Your task to perform on an android device: create a new album in the google photos Image 0: 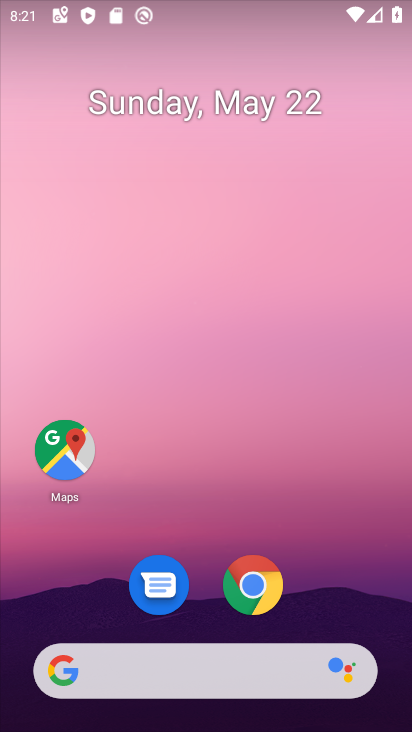
Step 0: drag from (250, 475) to (219, 58)
Your task to perform on an android device: create a new album in the google photos Image 1: 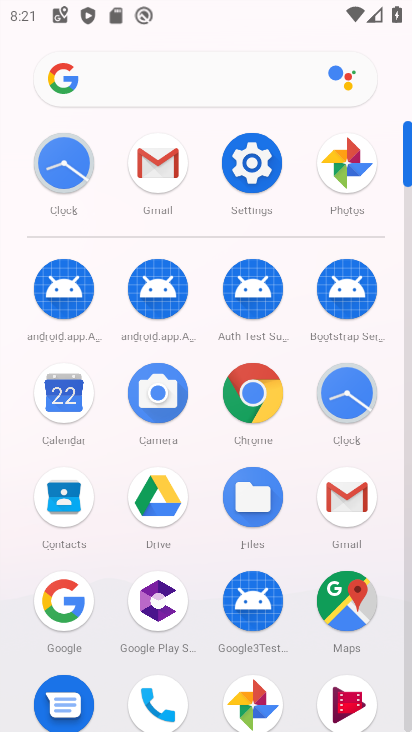
Step 1: click (340, 175)
Your task to perform on an android device: create a new album in the google photos Image 2: 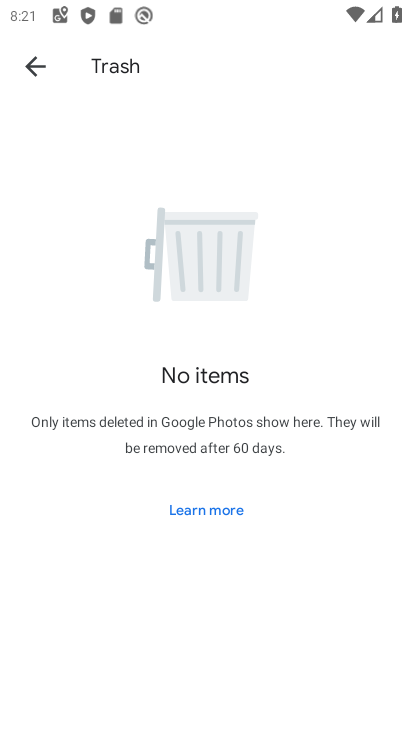
Step 2: click (33, 58)
Your task to perform on an android device: create a new album in the google photos Image 3: 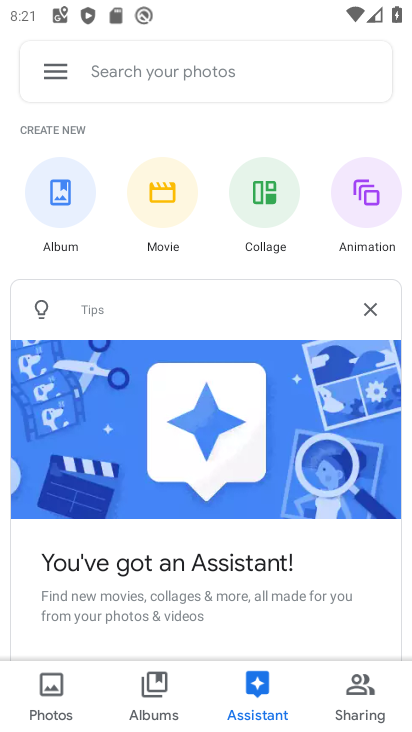
Step 3: click (168, 690)
Your task to perform on an android device: create a new album in the google photos Image 4: 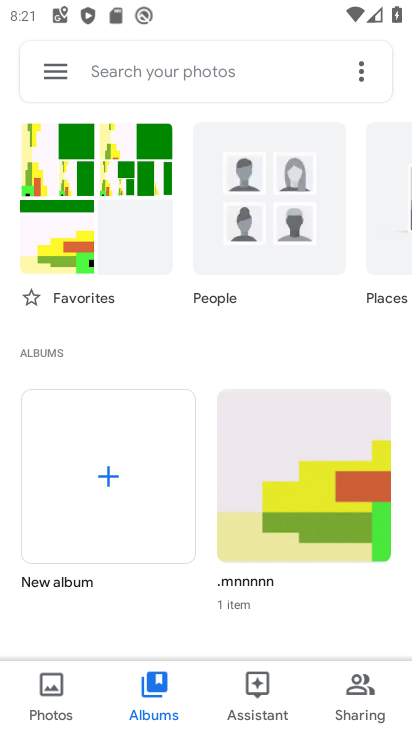
Step 4: click (103, 465)
Your task to perform on an android device: create a new album in the google photos Image 5: 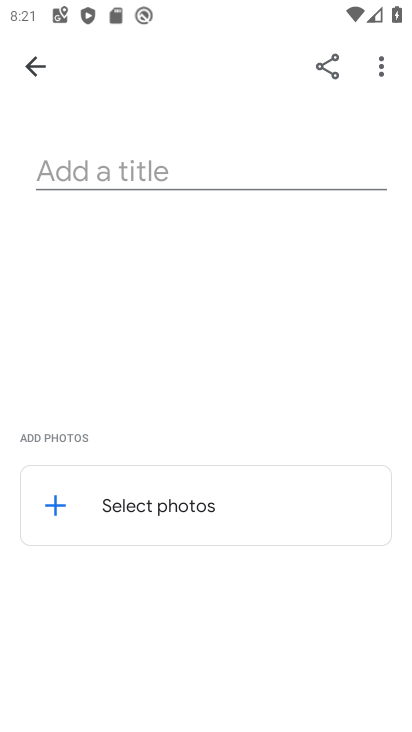
Step 5: type "Pushkar Brahma Temple"
Your task to perform on an android device: create a new album in the google photos Image 6: 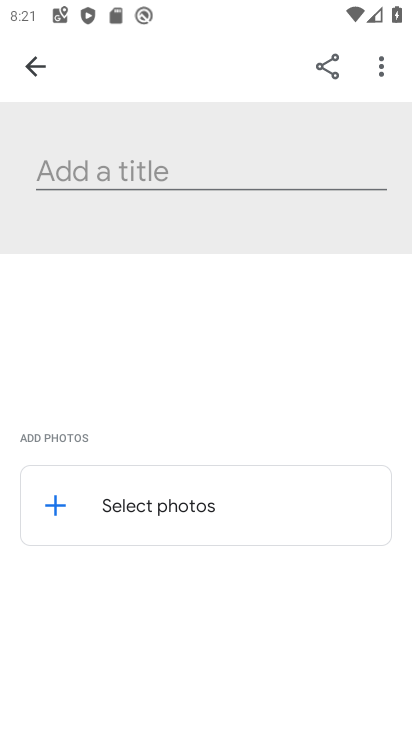
Step 6: click (292, 160)
Your task to perform on an android device: create a new album in the google photos Image 7: 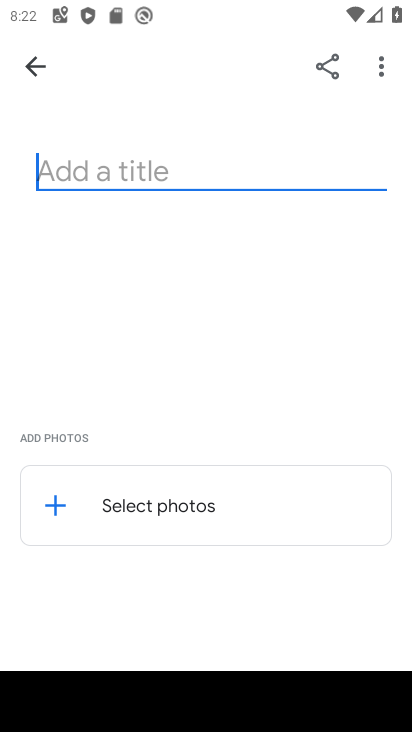
Step 7: type "Pushkar"
Your task to perform on an android device: create a new album in the google photos Image 8: 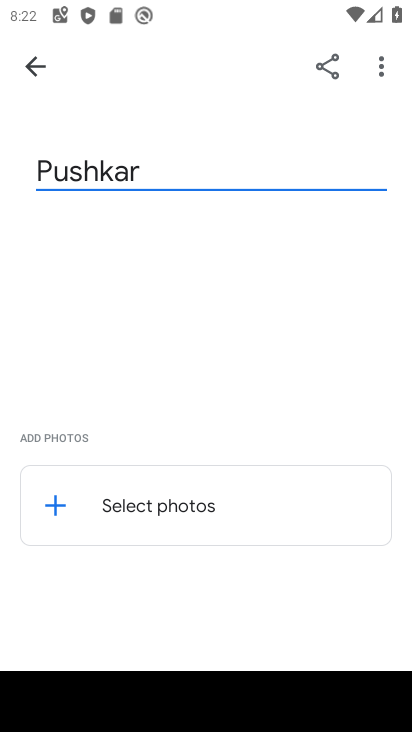
Step 8: click (53, 495)
Your task to perform on an android device: create a new album in the google photos Image 9: 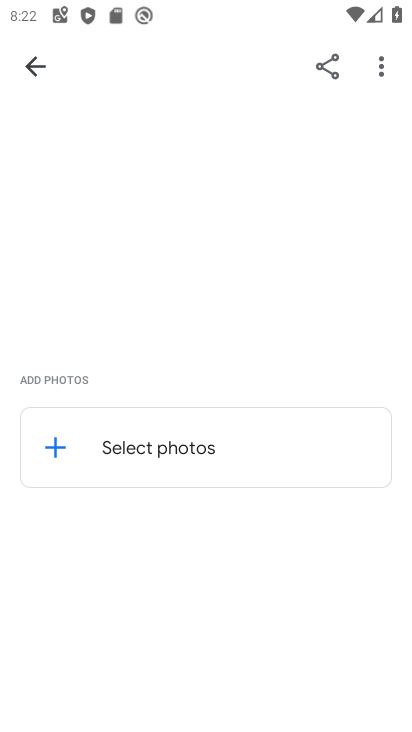
Step 9: click (93, 449)
Your task to perform on an android device: create a new album in the google photos Image 10: 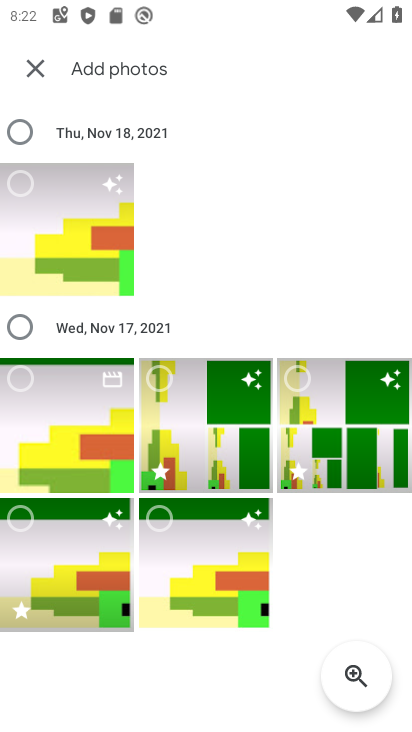
Step 10: click (22, 521)
Your task to perform on an android device: create a new album in the google photos Image 11: 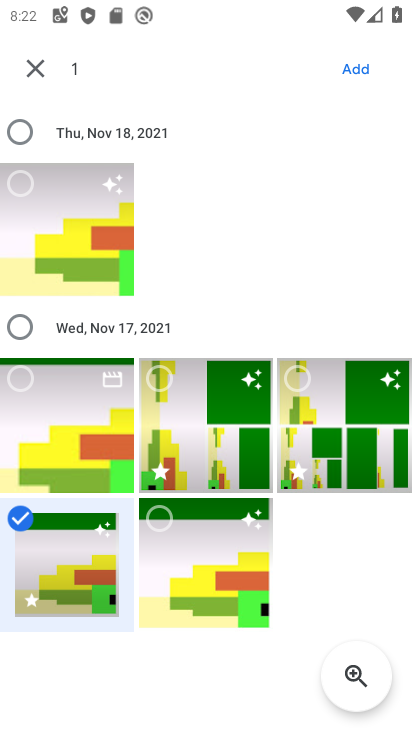
Step 11: click (357, 64)
Your task to perform on an android device: create a new album in the google photos Image 12: 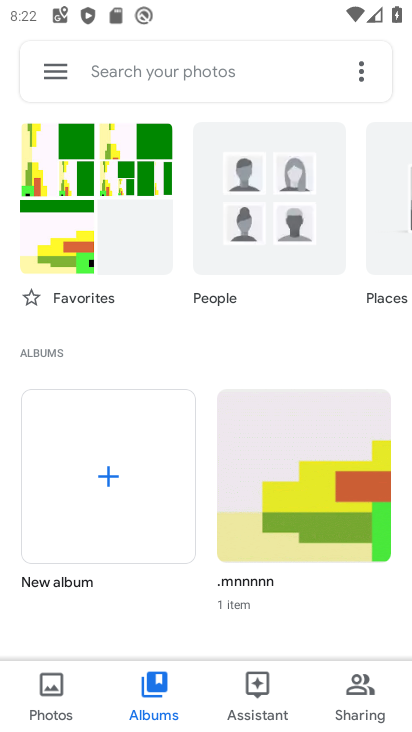
Step 12: task complete